Your task to perform on an android device: star an email in the gmail app Image 0: 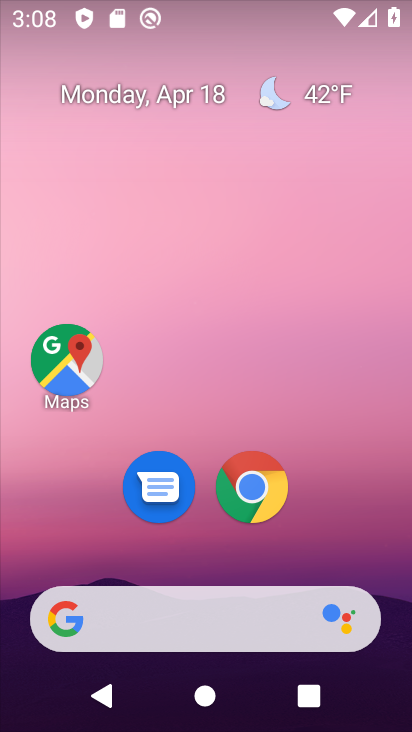
Step 0: drag from (213, 537) to (246, 143)
Your task to perform on an android device: star an email in the gmail app Image 1: 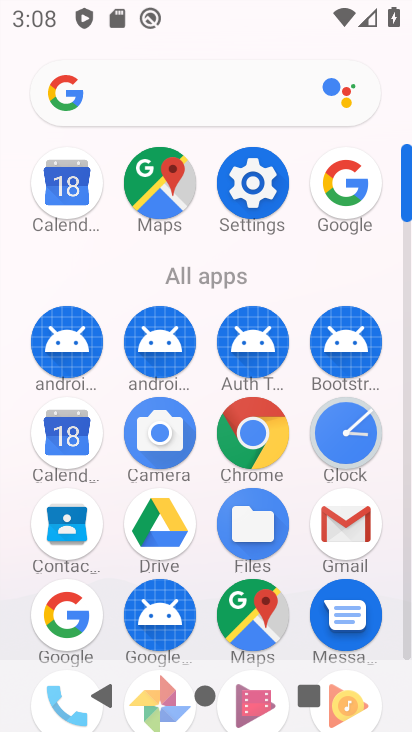
Step 1: click (367, 530)
Your task to perform on an android device: star an email in the gmail app Image 2: 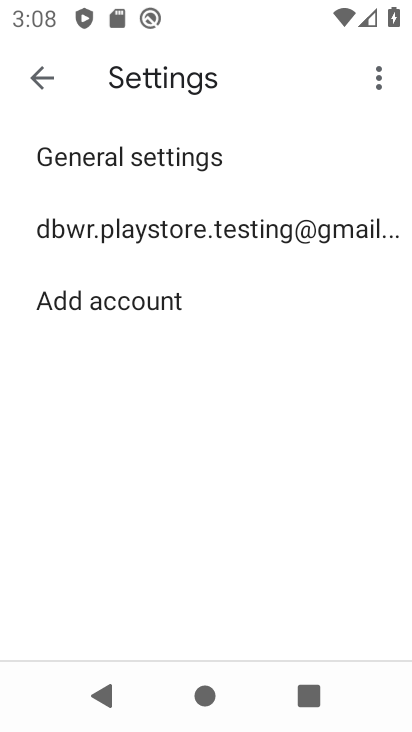
Step 2: click (23, 80)
Your task to perform on an android device: star an email in the gmail app Image 3: 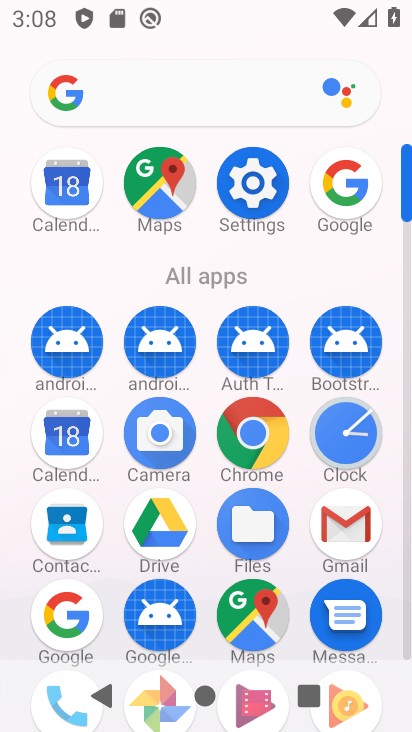
Step 3: click (344, 519)
Your task to perform on an android device: star an email in the gmail app Image 4: 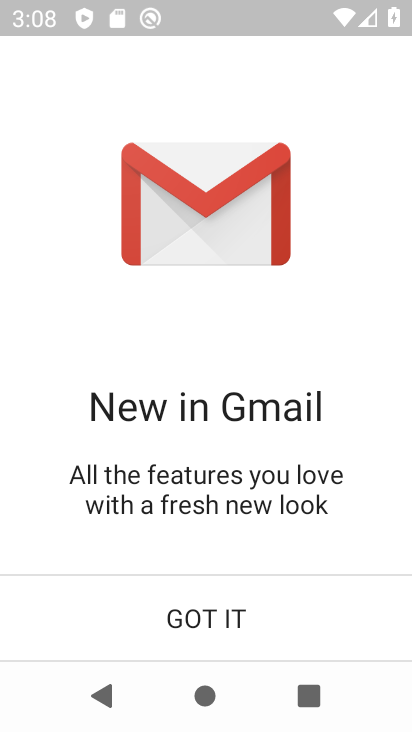
Step 4: click (231, 627)
Your task to perform on an android device: star an email in the gmail app Image 5: 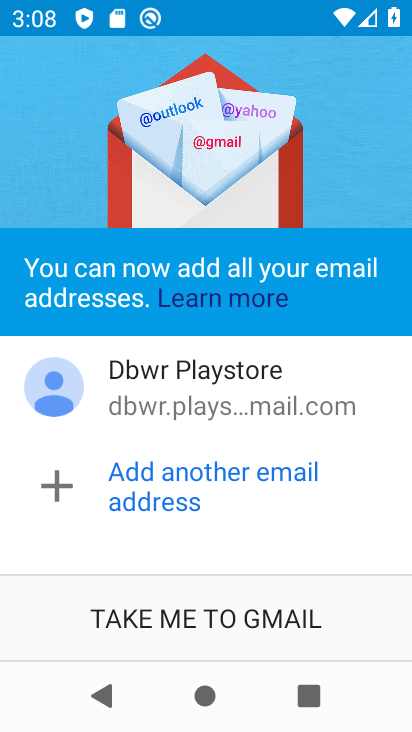
Step 5: click (228, 607)
Your task to perform on an android device: star an email in the gmail app Image 6: 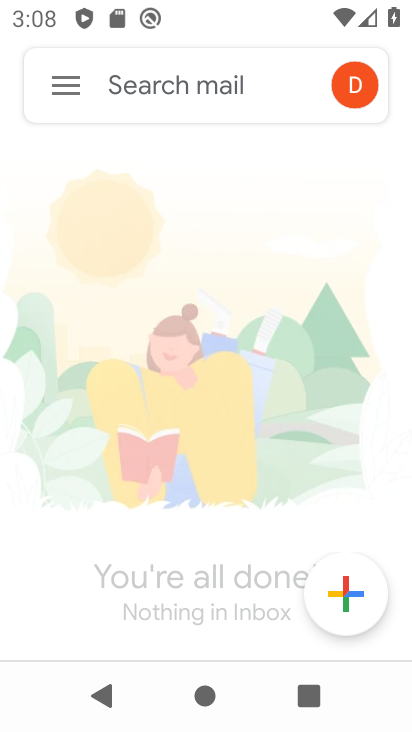
Step 6: click (66, 71)
Your task to perform on an android device: star an email in the gmail app Image 7: 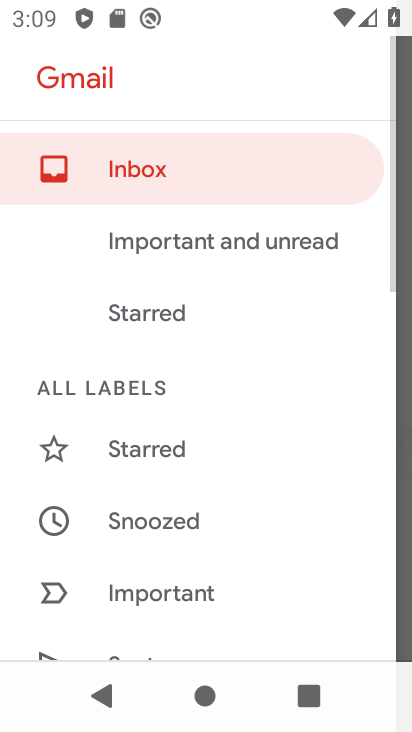
Step 7: drag from (246, 590) to (222, 227)
Your task to perform on an android device: star an email in the gmail app Image 8: 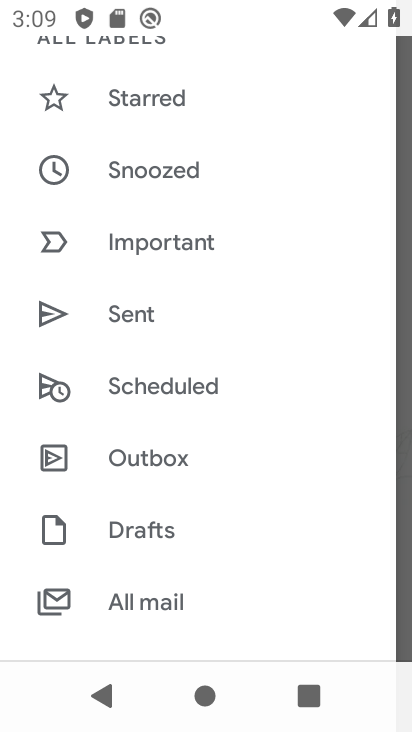
Step 8: click (228, 615)
Your task to perform on an android device: star an email in the gmail app Image 9: 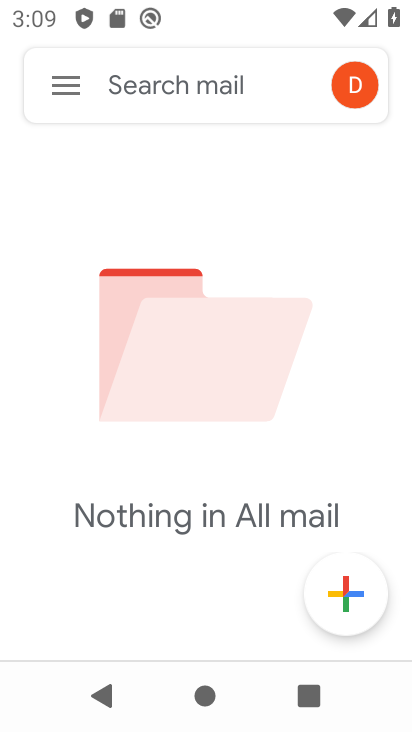
Step 9: task complete